Your task to perform on an android device: empty trash in the gmail app Image 0: 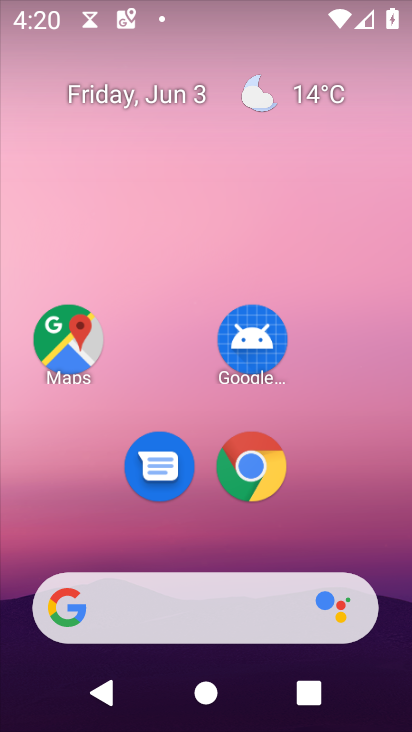
Step 0: drag from (261, 670) to (231, 96)
Your task to perform on an android device: empty trash in the gmail app Image 1: 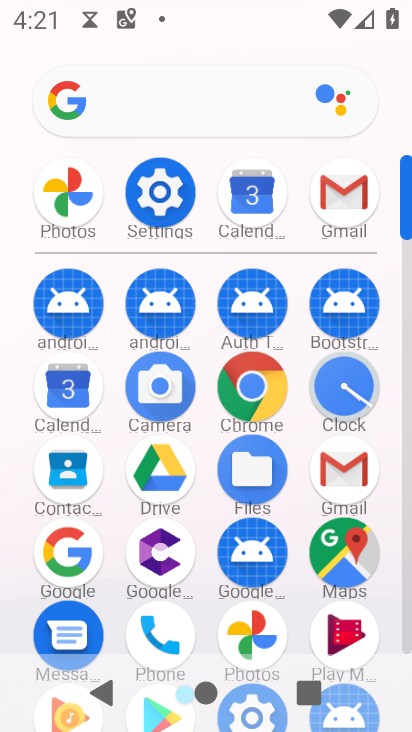
Step 1: click (339, 474)
Your task to perform on an android device: empty trash in the gmail app Image 2: 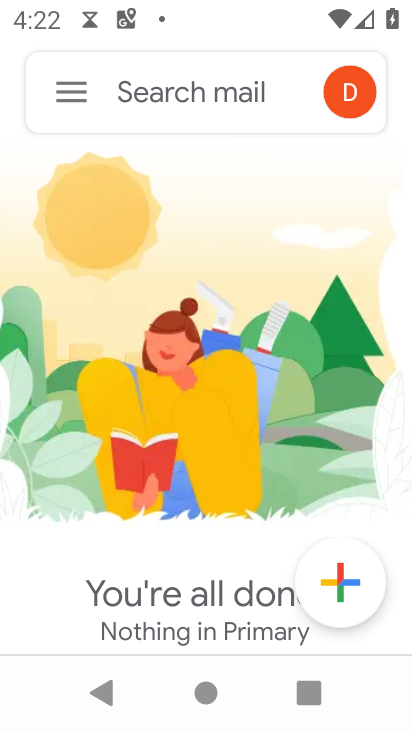
Step 2: click (70, 88)
Your task to perform on an android device: empty trash in the gmail app Image 3: 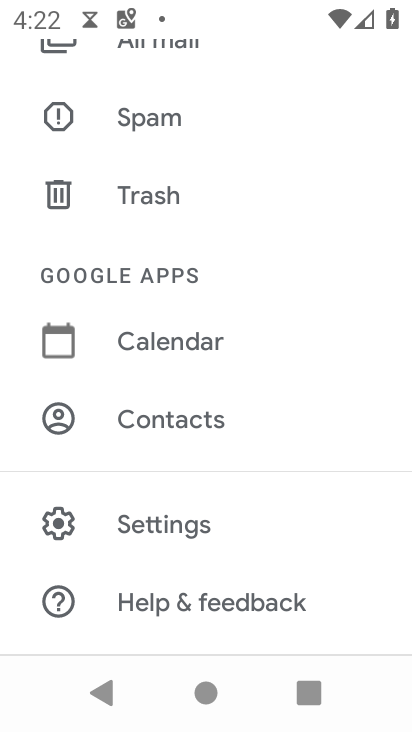
Step 3: click (174, 186)
Your task to perform on an android device: empty trash in the gmail app Image 4: 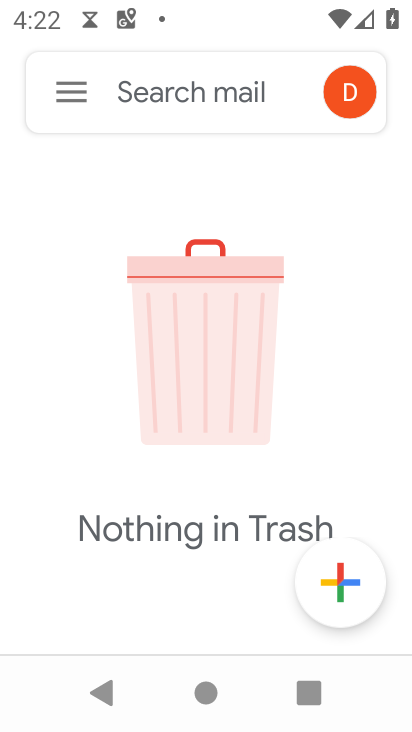
Step 4: task complete